Your task to perform on an android device: Open the stopwatch Image 0: 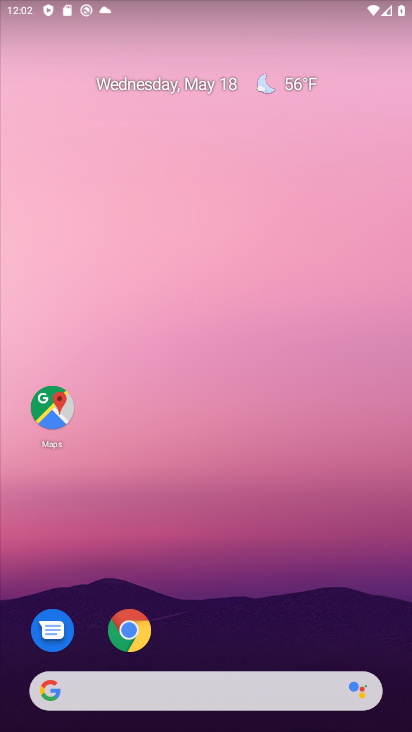
Step 0: drag from (231, 524) to (273, 269)
Your task to perform on an android device: Open the stopwatch Image 1: 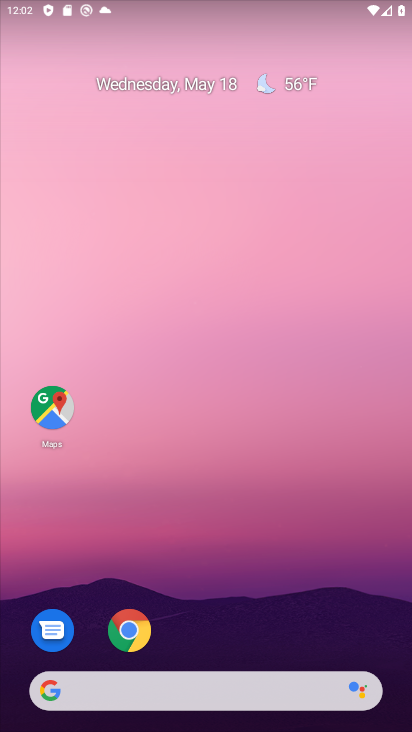
Step 1: drag from (244, 564) to (376, 48)
Your task to perform on an android device: Open the stopwatch Image 2: 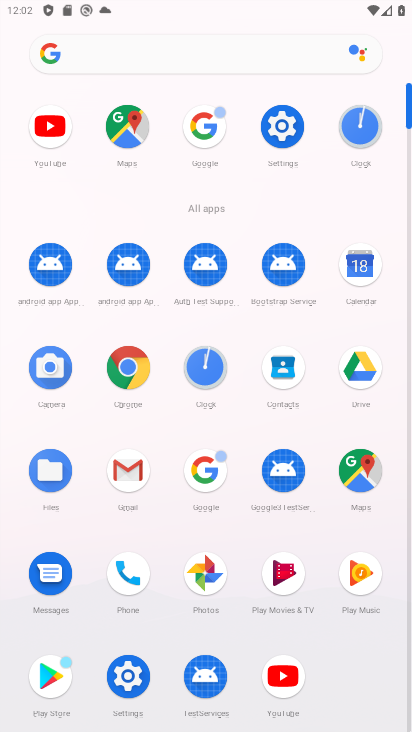
Step 2: click (364, 119)
Your task to perform on an android device: Open the stopwatch Image 3: 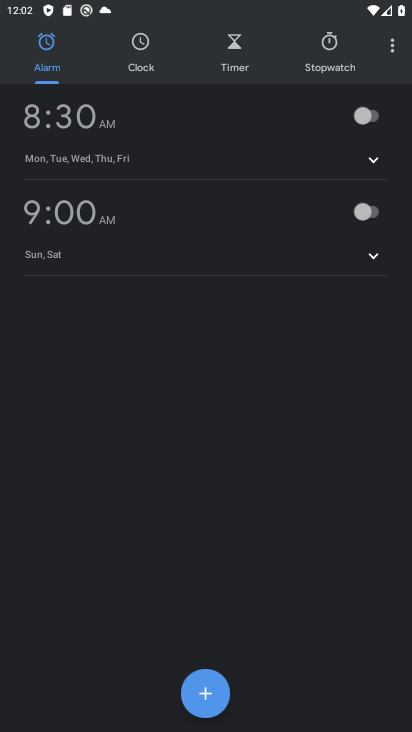
Step 3: click (326, 53)
Your task to perform on an android device: Open the stopwatch Image 4: 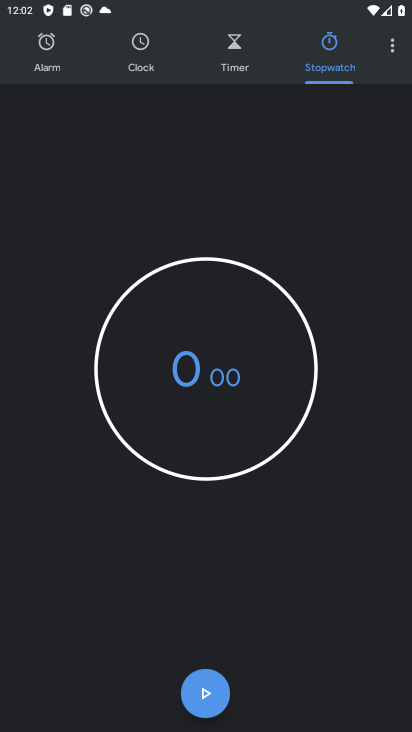
Step 4: task complete